Your task to perform on an android device: Open location settings Image 0: 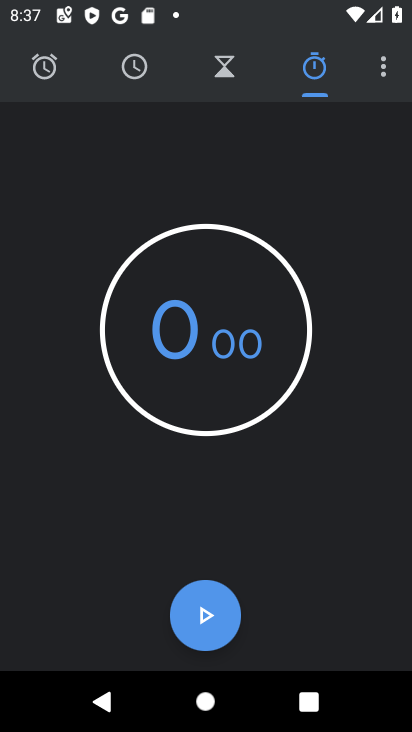
Step 0: press home button
Your task to perform on an android device: Open location settings Image 1: 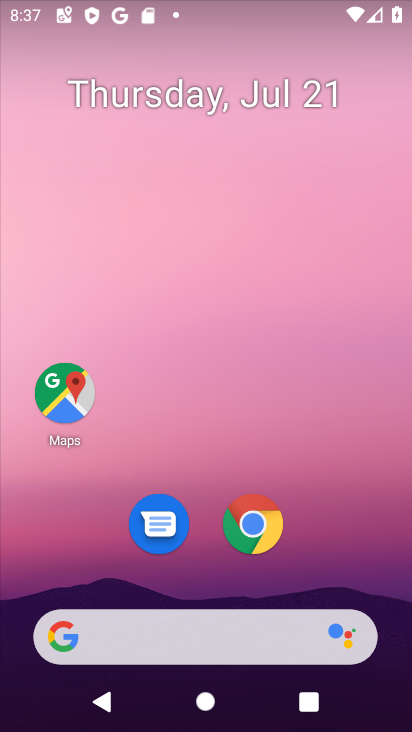
Step 1: drag from (169, 593) to (274, 125)
Your task to perform on an android device: Open location settings Image 2: 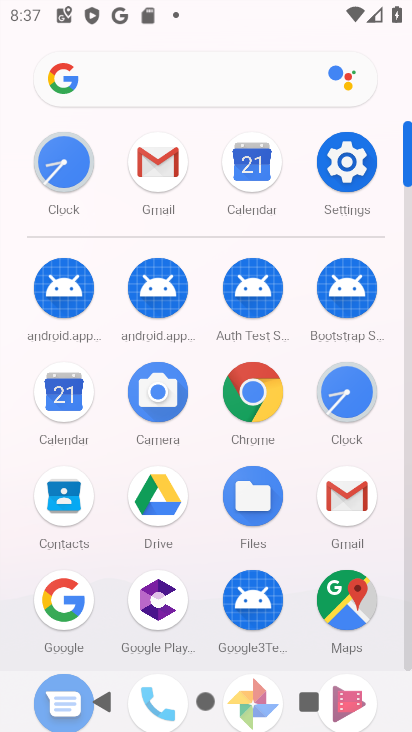
Step 2: click (344, 168)
Your task to perform on an android device: Open location settings Image 3: 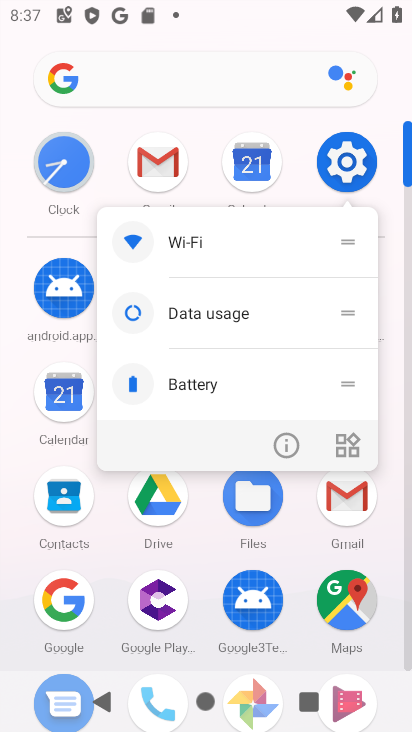
Step 3: click (344, 168)
Your task to perform on an android device: Open location settings Image 4: 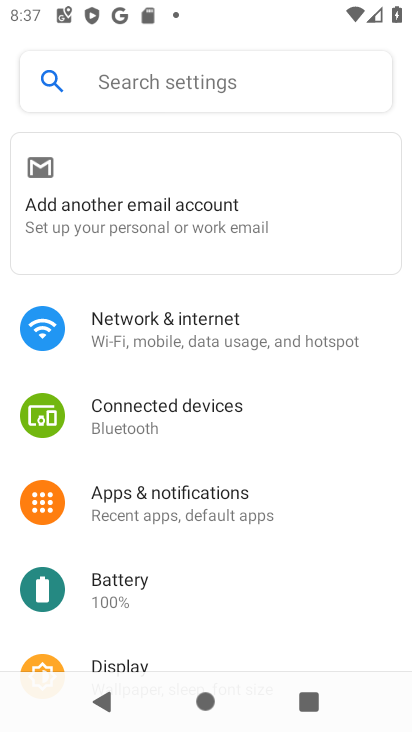
Step 4: drag from (215, 623) to (323, 142)
Your task to perform on an android device: Open location settings Image 5: 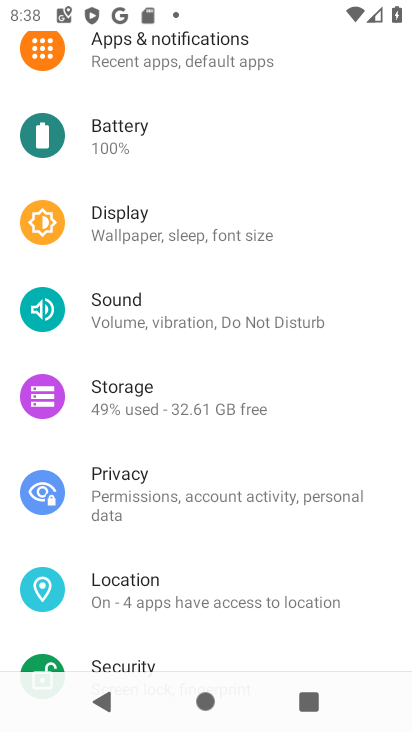
Step 5: click (174, 593)
Your task to perform on an android device: Open location settings Image 6: 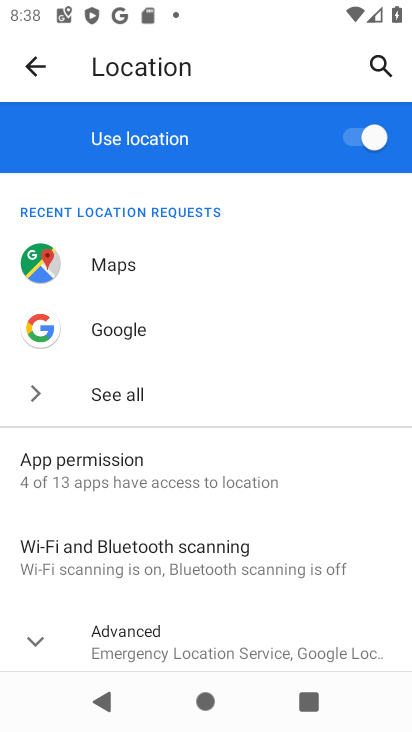
Step 6: task complete